Your task to perform on an android device: open app "Google Keep" (install if not already installed) Image 0: 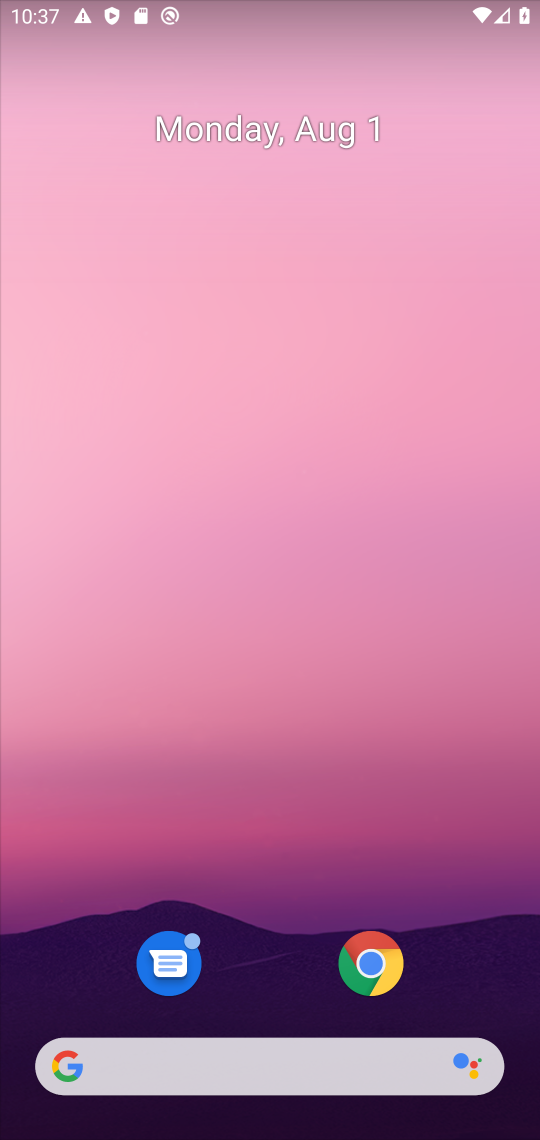
Step 0: drag from (292, 903) to (295, 438)
Your task to perform on an android device: open app "Google Keep" (install if not already installed) Image 1: 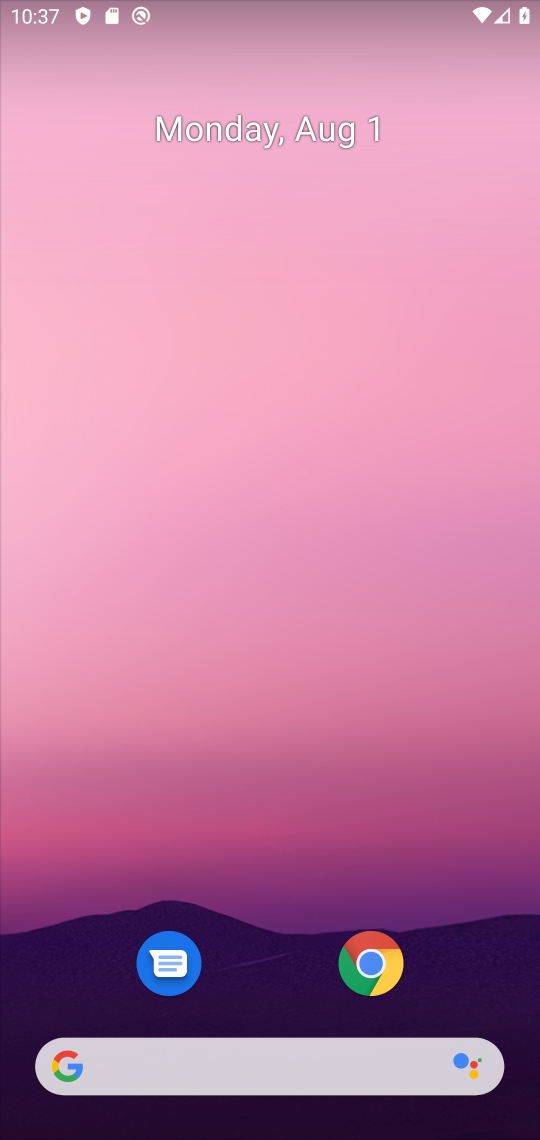
Step 1: drag from (290, 883) to (343, 131)
Your task to perform on an android device: open app "Google Keep" (install if not already installed) Image 2: 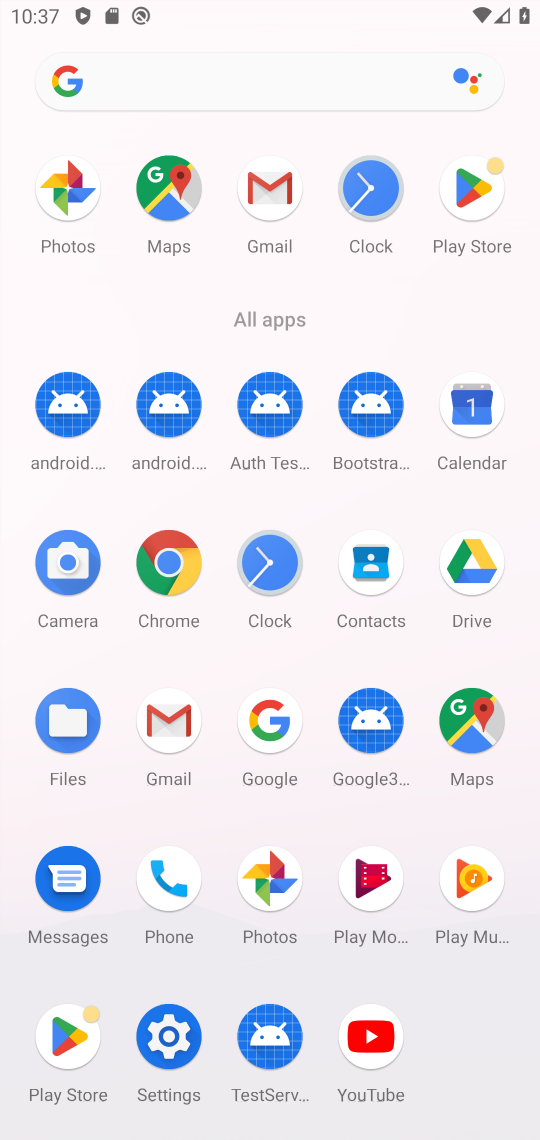
Step 2: click (482, 197)
Your task to perform on an android device: open app "Google Keep" (install if not already installed) Image 3: 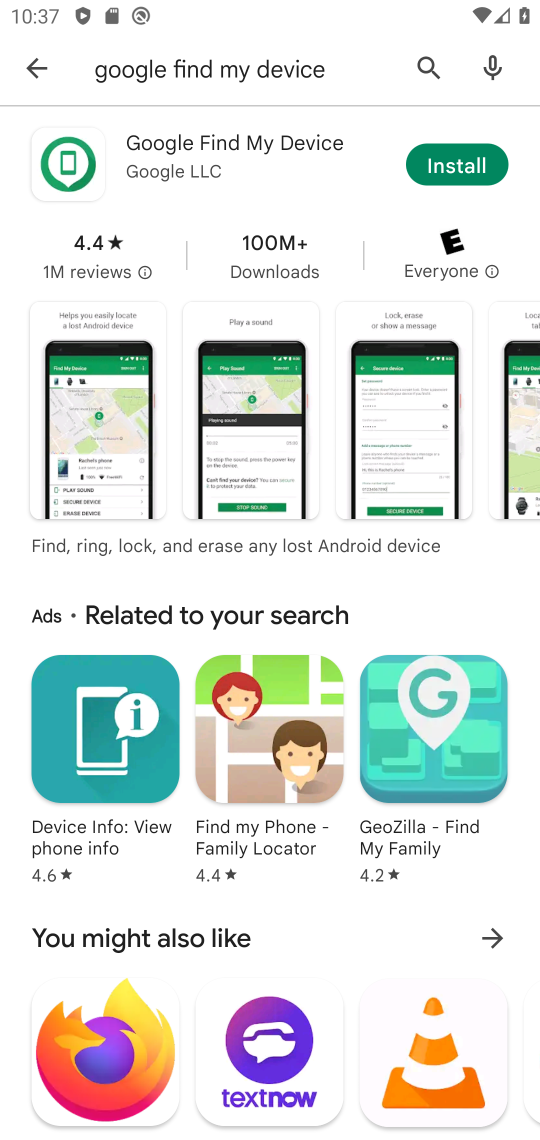
Step 3: click (265, 68)
Your task to perform on an android device: open app "Google Keep" (install if not already installed) Image 4: 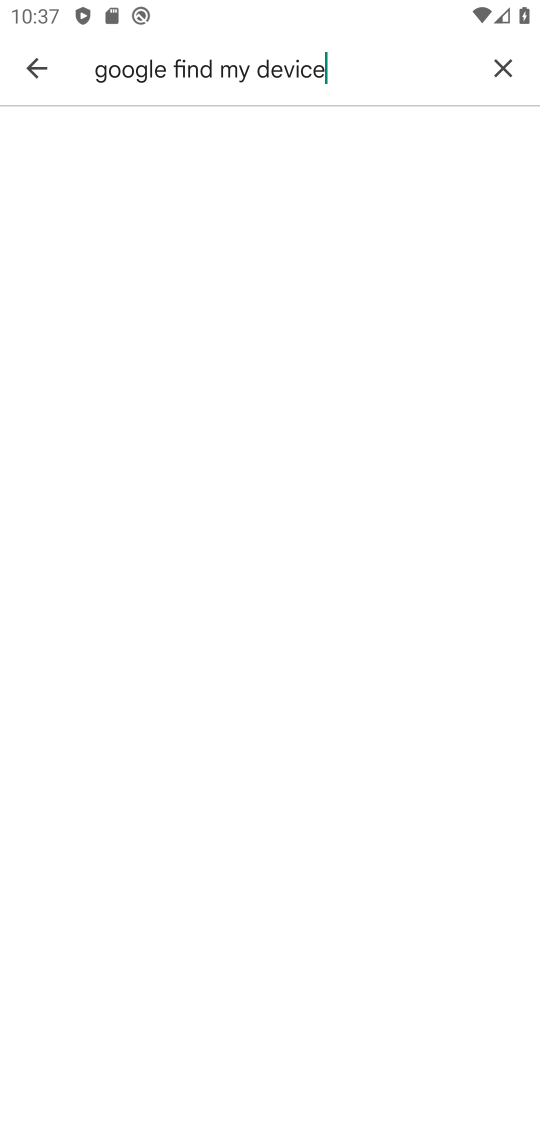
Step 4: click (507, 68)
Your task to perform on an android device: open app "Google Keep" (install if not already installed) Image 5: 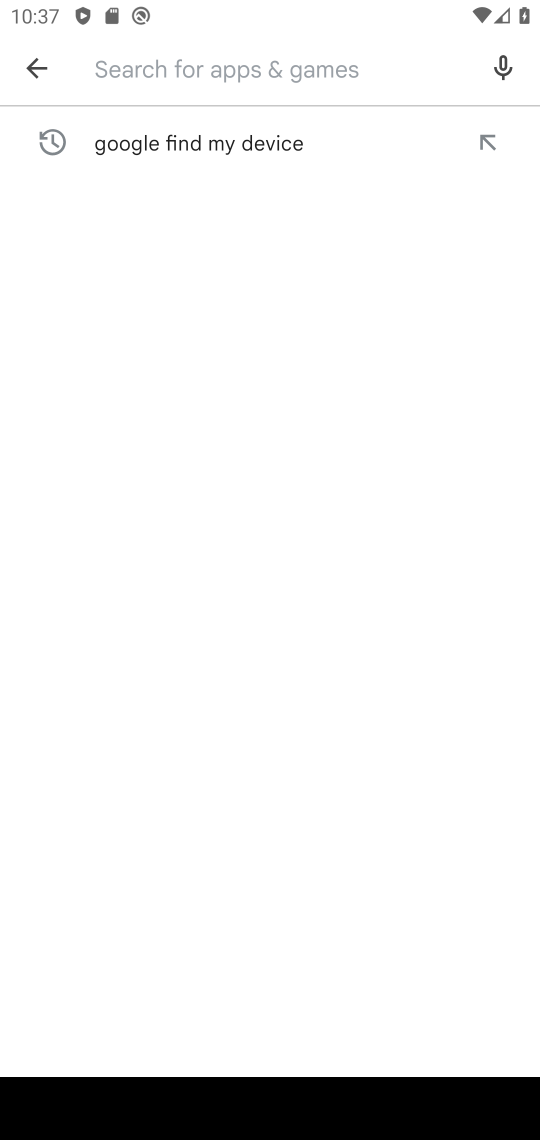
Step 5: type "google keep"
Your task to perform on an android device: open app "Google Keep" (install if not already installed) Image 6: 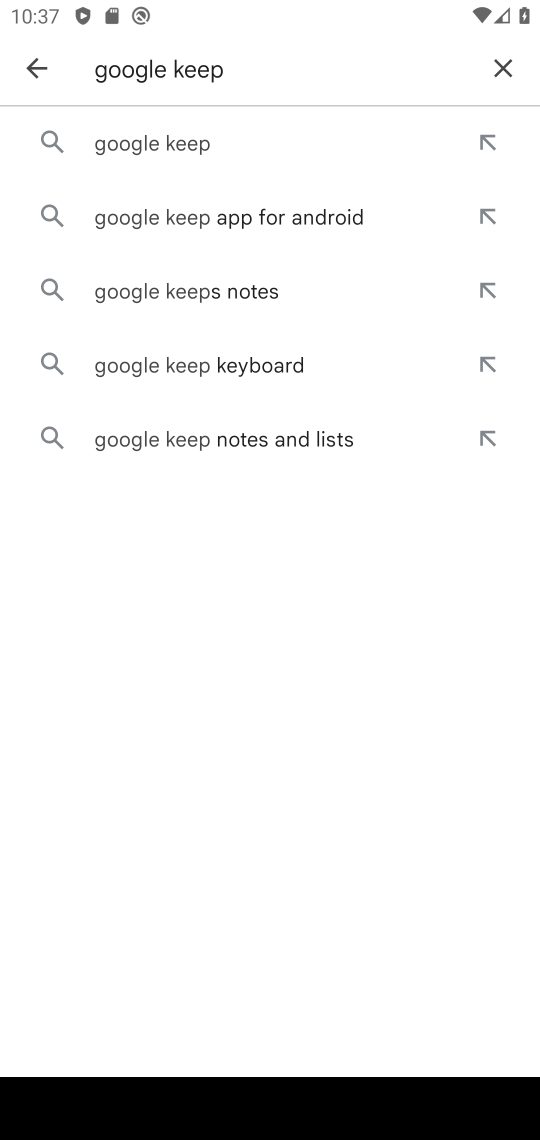
Step 6: click (156, 143)
Your task to perform on an android device: open app "Google Keep" (install if not already installed) Image 7: 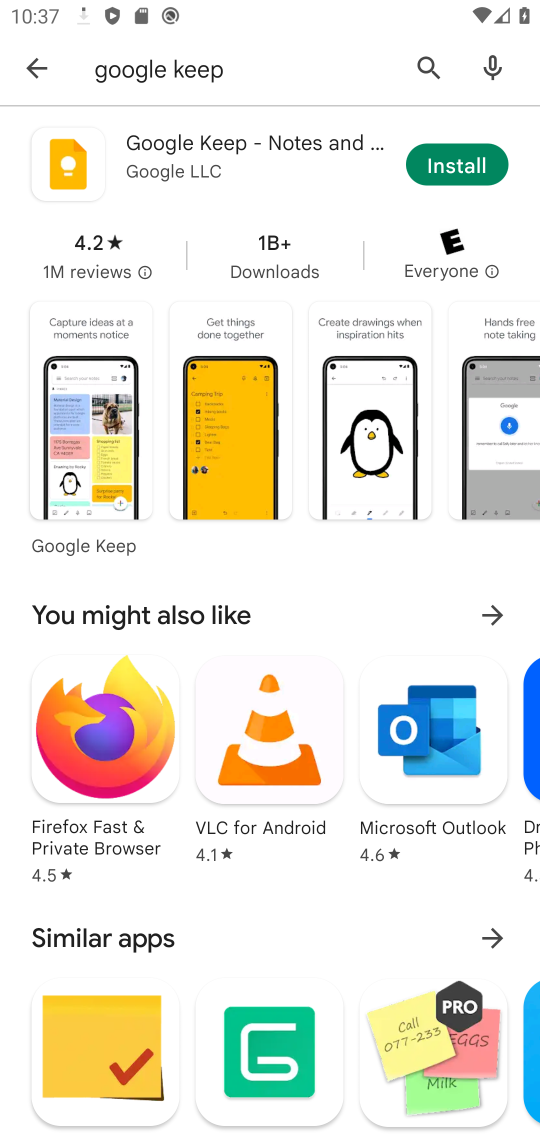
Step 7: click (461, 168)
Your task to perform on an android device: open app "Google Keep" (install if not already installed) Image 8: 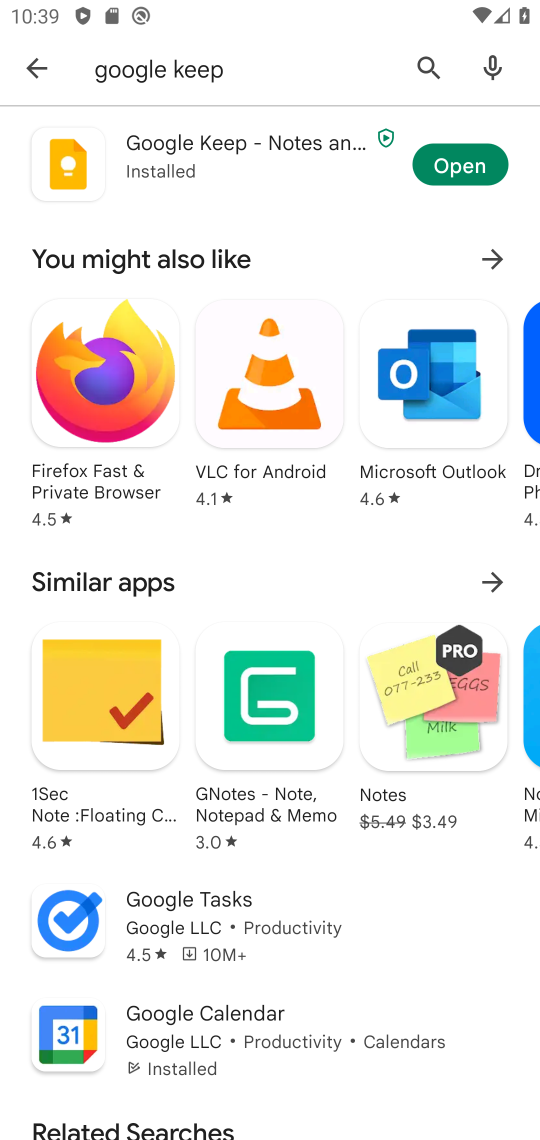
Step 8: click (457, 170)
Your task to perform on an android device: open app "Google Keep" (install if not already installed) Image 9: 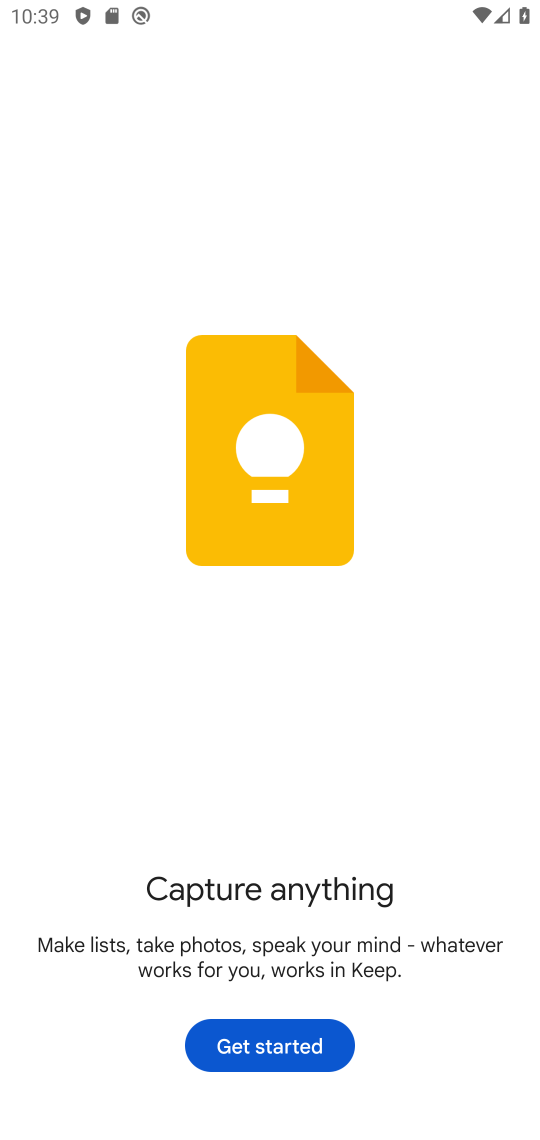
Step 9: click (244, 1065)
Your task to perform on an android device: open app "Google Keep" (install if not already installed) Image 10: 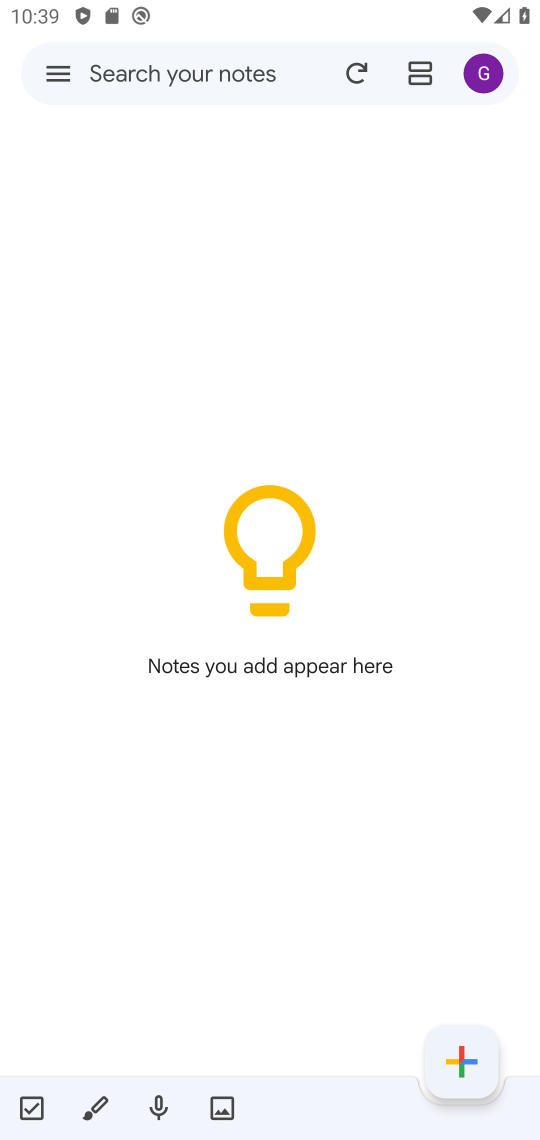
Step 10: task complete